Your task to perform on an android device: Open settings on Google Maps Image 0: 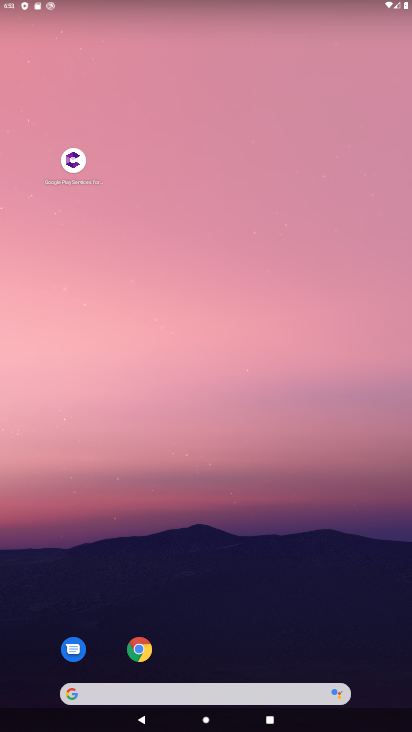
Step 0: drag from (194, 693) to (239, 50)
Your task to perform on an android device: Open settings on Google Maps Image 1: 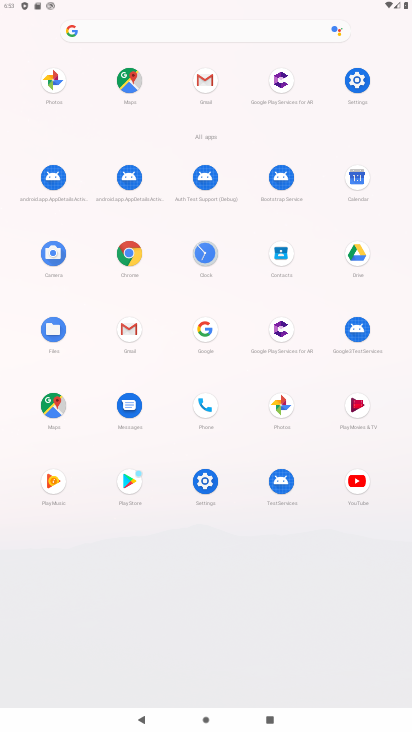
Step 1: click (129, 82)
Your task to perform on an android device: Open settings on Google Maps Image 2: 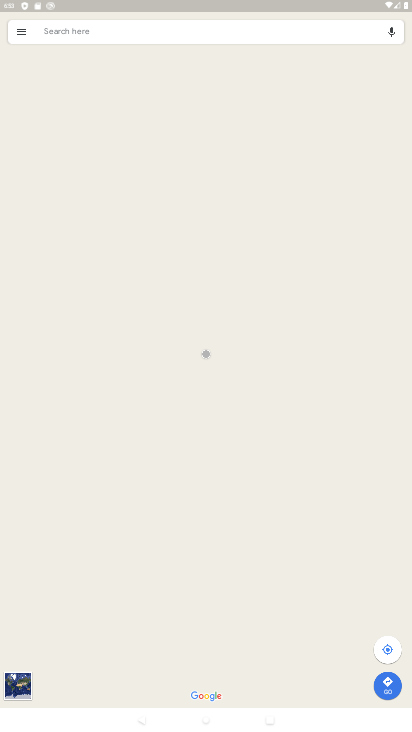
Step 2: click (21, 30)
Your task to perform on an android device: Open settings on Google Maps Image 3: 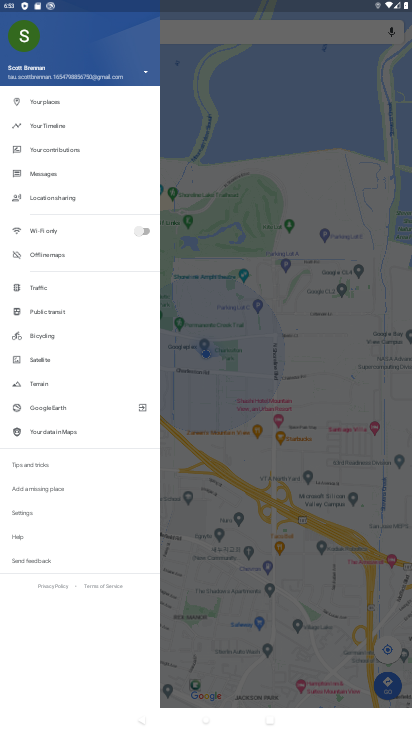
Step 3: click (27, 513)
Your task to perform on an android device: Open settings on Google Maps Image 4: 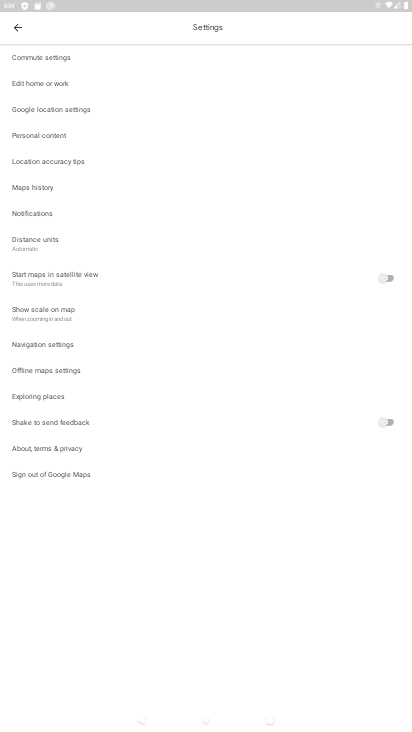
Step 4: task complete